Your task to perform on an android device: Open accessibility settings Image 0: 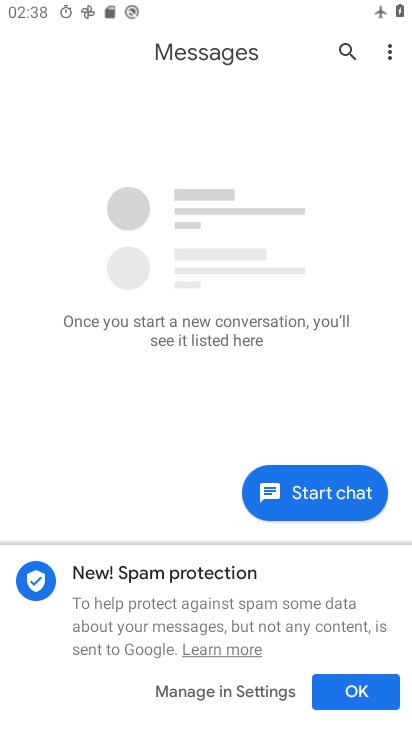
Step 0: press home button
Your task to perform on an android device: Open accessibility settings Image 1: 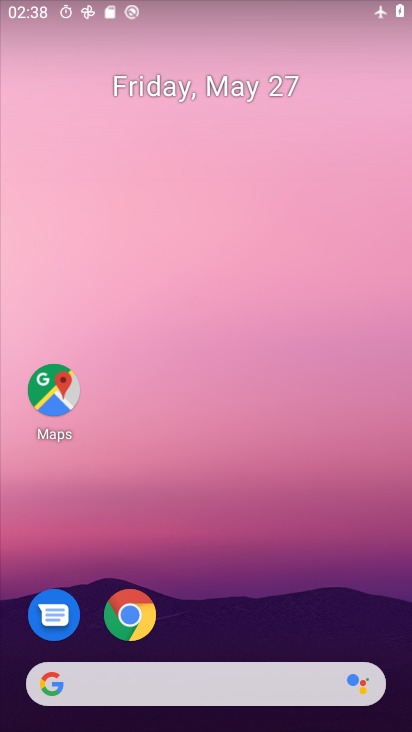
Step 1: drag from (380, 625) to (379, 193)
Your task to perform on an android device: Open accessibility settings Image 2: 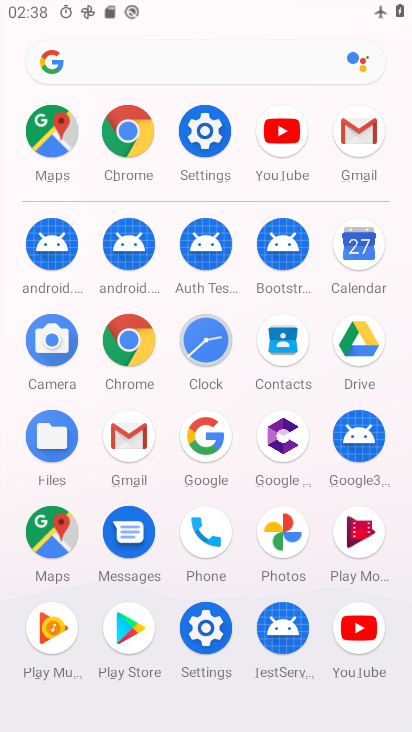
Step 2: click (212, 144)
Your task to perform on an android device: Open accessibility settings Image 3: 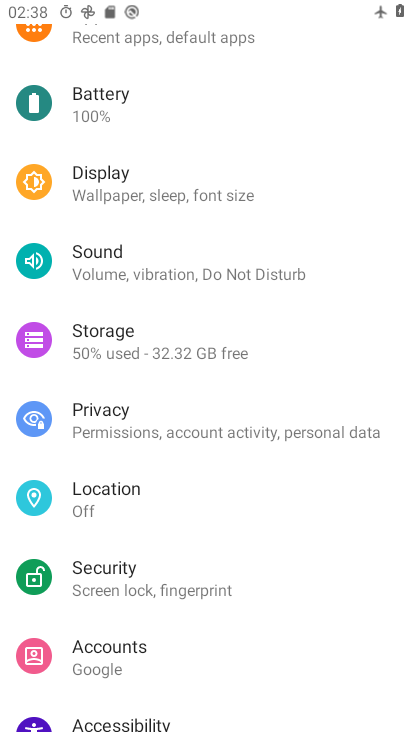
Step 3: drag from (326, 560) to (329, 440)
Your task to perform on an android device: Open accessibility settings Image 4: 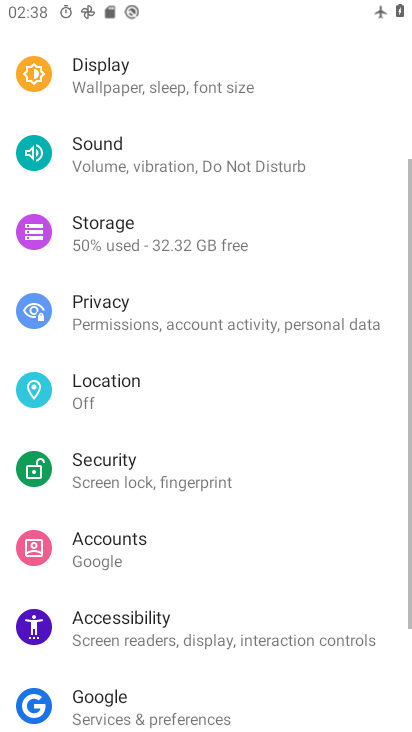
Step 4: drag from (314, 551) to (330, 406)
Your task to perform on an android device: Open accessibility settings Image 5: 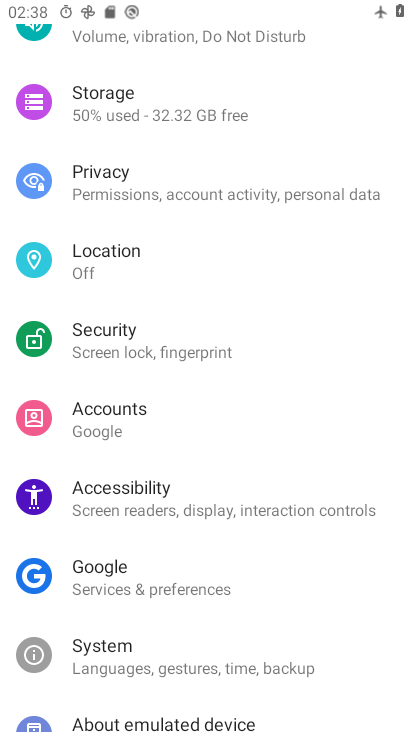
Step 5: drag from (311, 604) to (337, 407)
Your task to perform on an android device: Open accessibility settings Image 6: 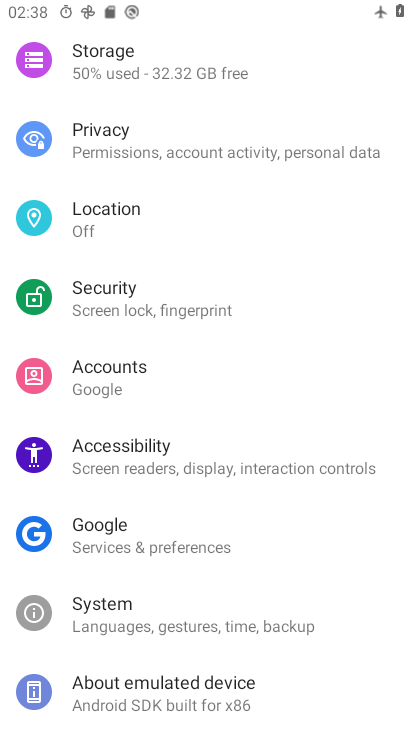
Step 6: click (312, 458)
Your task to perform on an android device: Open accessibility settings Image 7: 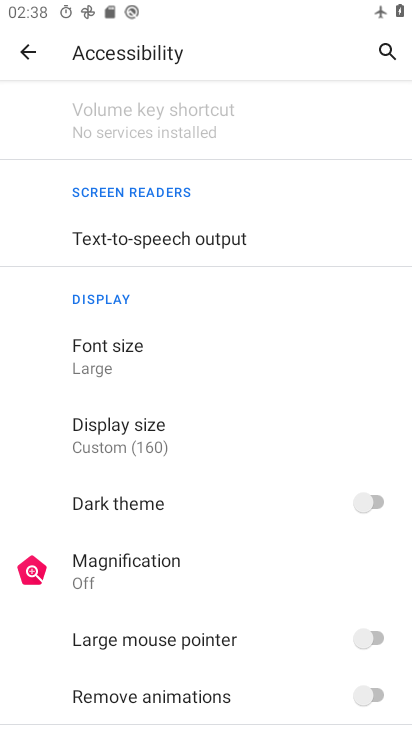
Step 7: task complete